Your task to perform on an android device: Go to Amazon Image 0: 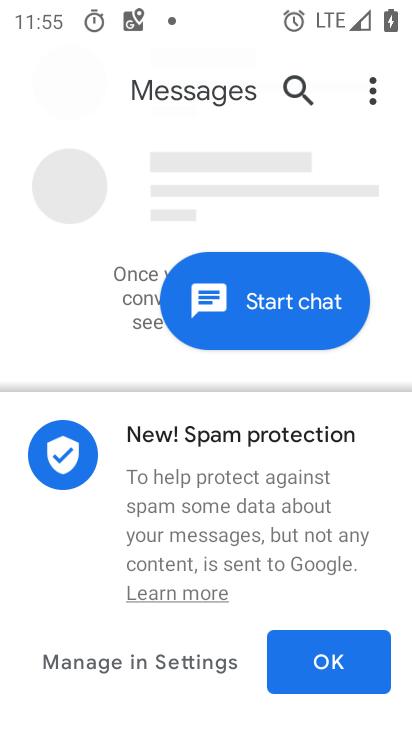
Step 0: press home button
Your task to perform on an android device: Go to Amazon Image 1: 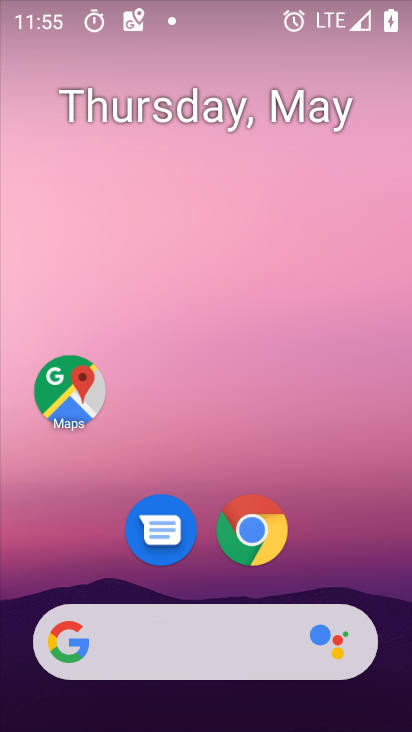
Step 1: drag from (370, 564) to (376, 32)
Your task to perform on an android device: Go to Amazon Image 2: 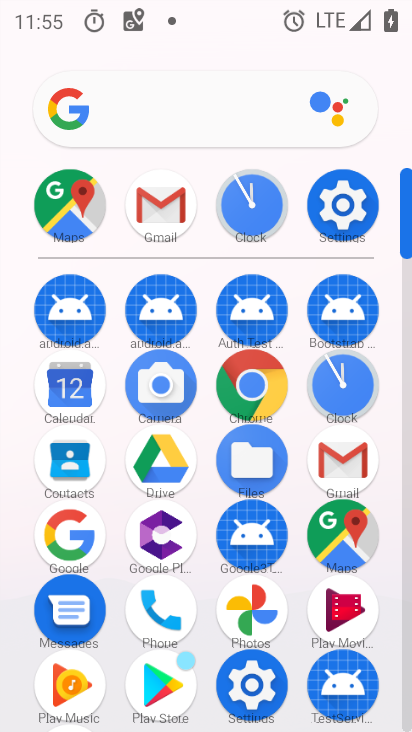
Step 2: click (251, 349)
Your task to perform on an android device: Go to Amazon Image 3: 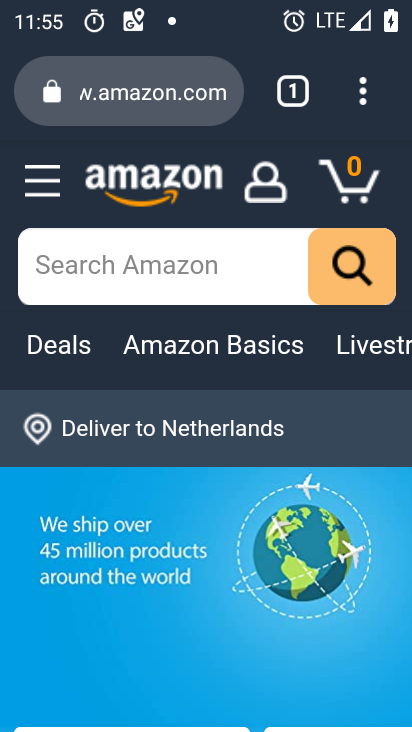
Step 3: task complete